Your task to perform on an android device: install app "Spotify: Music and Podcasts" Image 0: 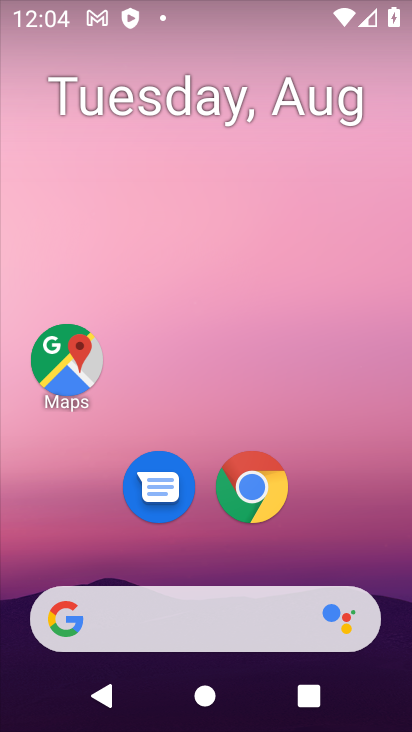
Step 0: drag from (198, 678) to (44, 217)
Your task to perform on an android device: install app "Spotify: Music and Podcasts" Image 1: 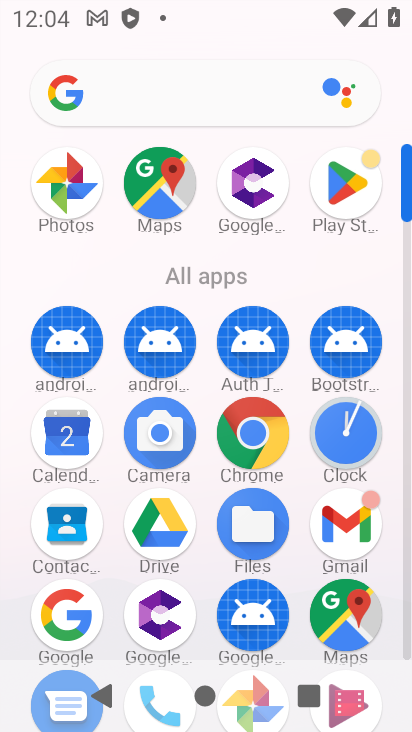
Step 1: click (341, 208)
Your task to perform on an android device: install app "Spotify: Music and Podcasts" Image 2: 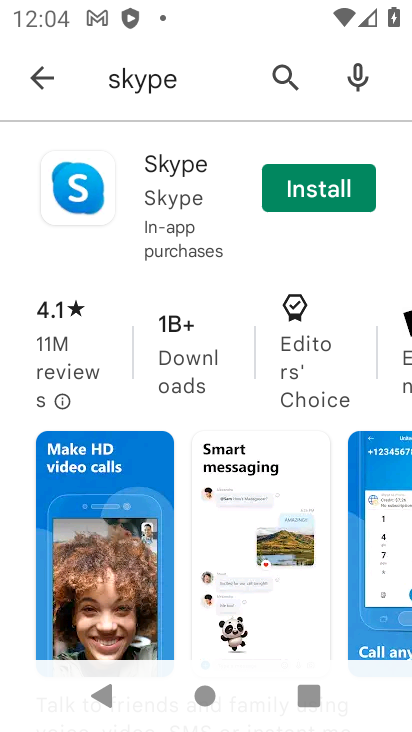
Step 2: click (45, 78)
Your task to perform on an android device: install app "Spotify: Music and Podcasts" Image 3: 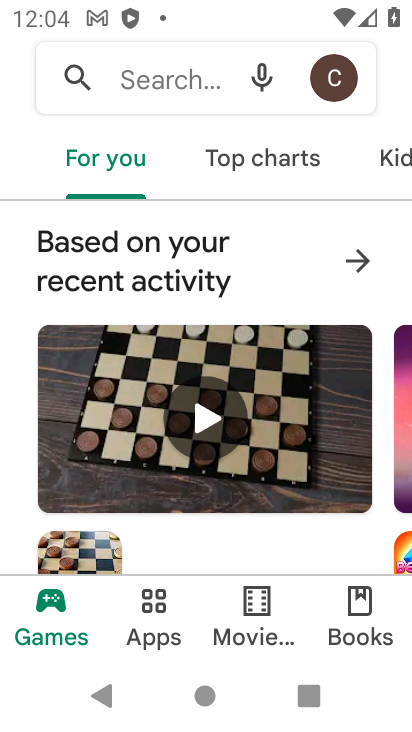
Step 3: click (126, 96)
Your task to perform on an android device: install app "Spotify: Music and Podcasts" Image 4: 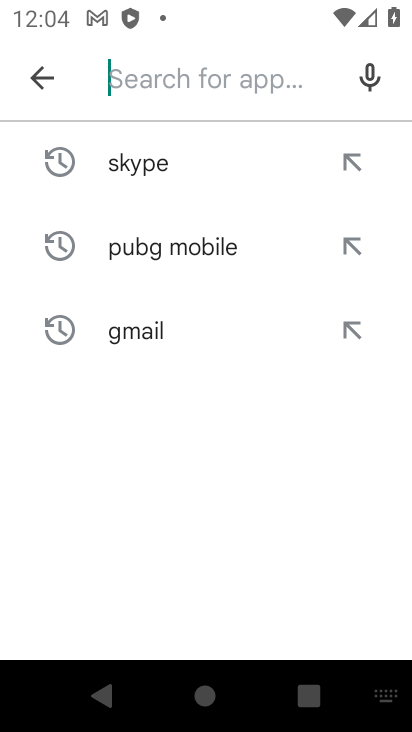
Step 4: type "Spotify: Music and Podcasts"
Your task to perform on an android device: install app "Spotify: Music and Podcasts" Image 5: 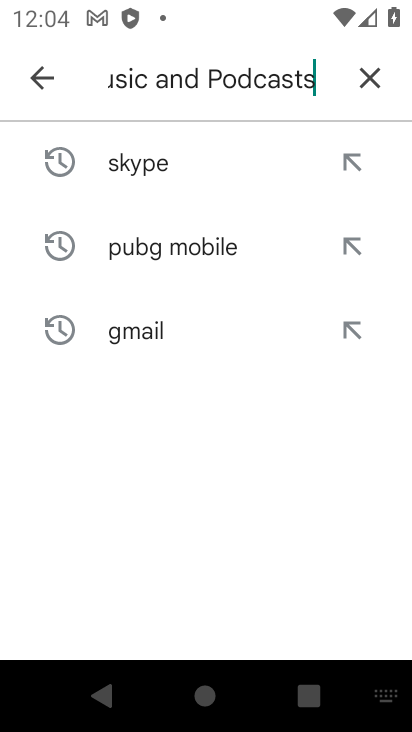
Step 5: type ""
Your task to perform on an android device: install app "Spotify: Music and Podcasts" Image 6: 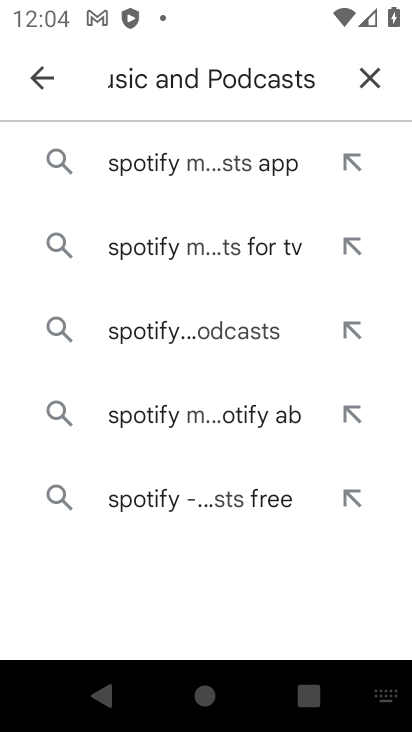
Step 6: click (253, 168)
Your task to perform on an android device: install app "Spotify: Music and Podcasts" Image 7: 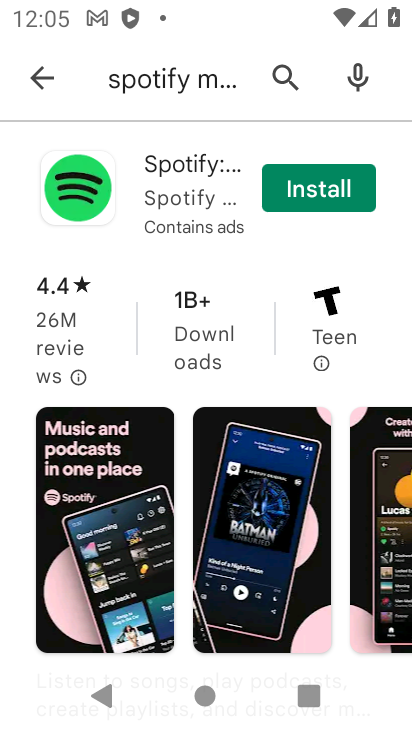
Step 7: click (328, 200)
Your task to perform on an android device: install app "Spotify: Music and Podcasts" Image 8: 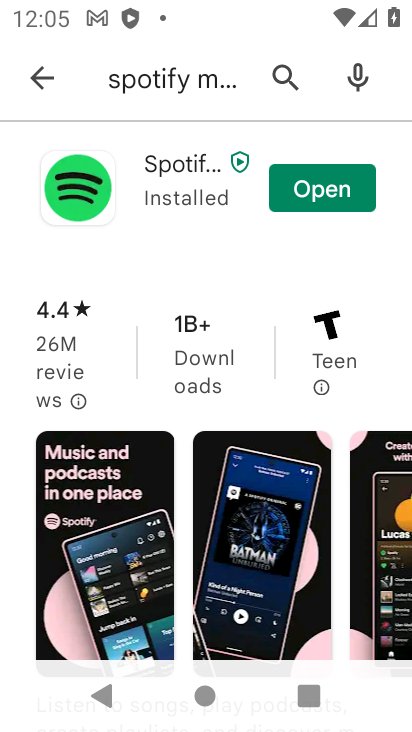
Step 8: task complete